Your task to perform on an android device: delete browsing data in the chrome app Image 0: 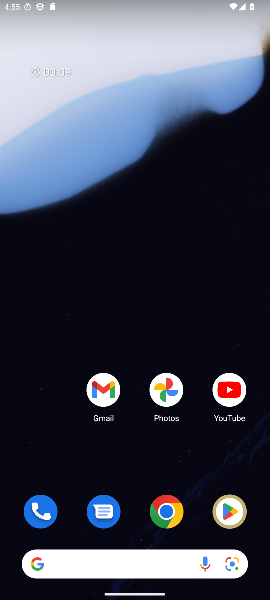
Step 0: click (166, 517)
Your task to perform on an android device: delete browsing data in the chrome app Image 1: 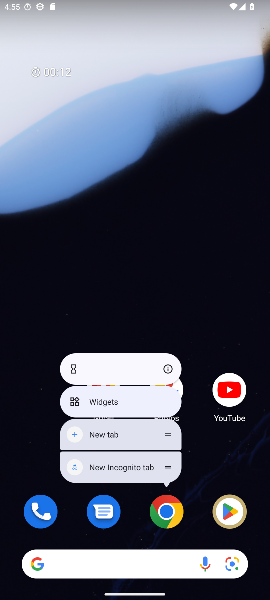
Step 1: click (172, 508)
Your task to perform on an android device: delete browsing data in the chrome app Image 2: 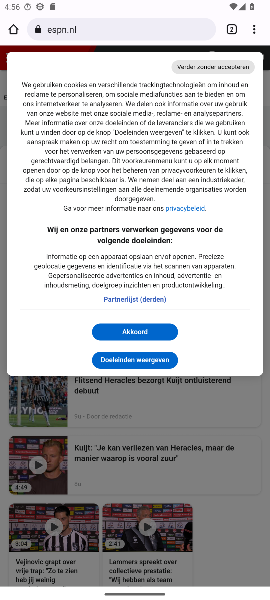
Step 2: click (253, 25)
Your task to perform on an android device: delete browsing data in the chrome app Image 3: 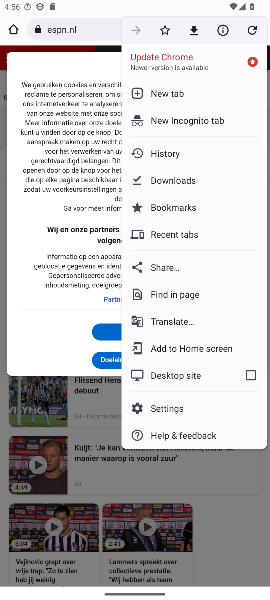
Step 3: click (178, 154)
Your task to perform on an android device: delete browsing data in the chrome app Image 4: 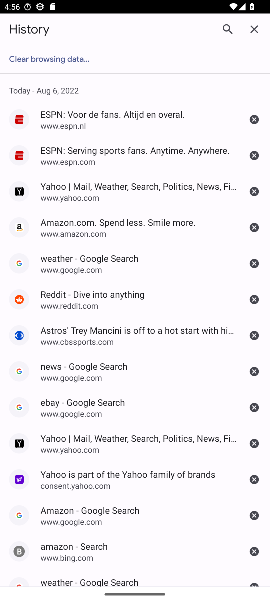
Step 4: click (55, 56)
Your task to perform on an android device: delete browsing data in the chrome app Image 5: 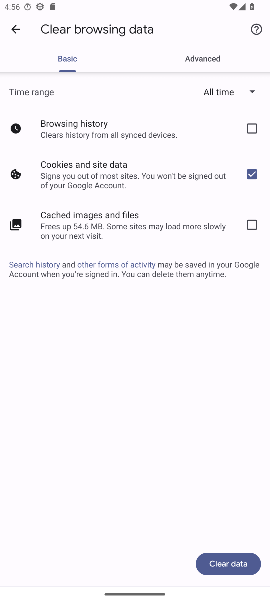
Step 5: click (246, 124)
Your task to perform on an android device: delete browsing data in the chrome app Image 6: 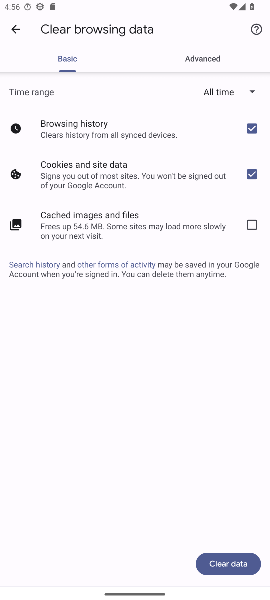
Step 6: click (251, 220)
Your task to perform on an android device: delete browsing data in the chrome app Image 7: 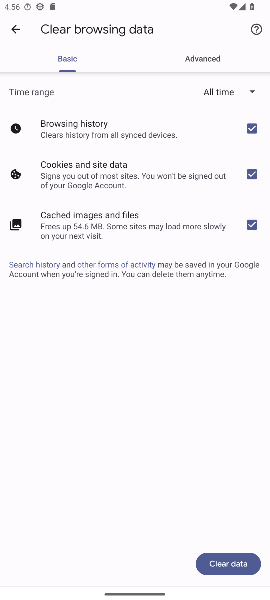
Step 7: click (241, 567)
Your task to perform on an android device: delete browsing data in the chrome app Image 8: 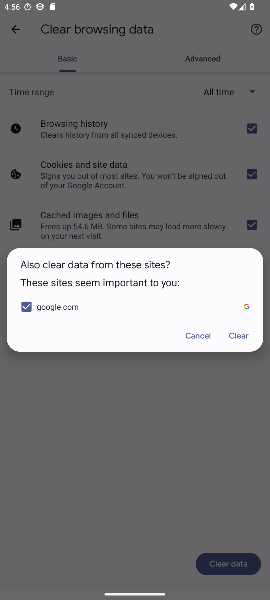
Step 8: click (241, 333)
Your task to perform on an android device: delete browsing data in the chrome app Image 9: 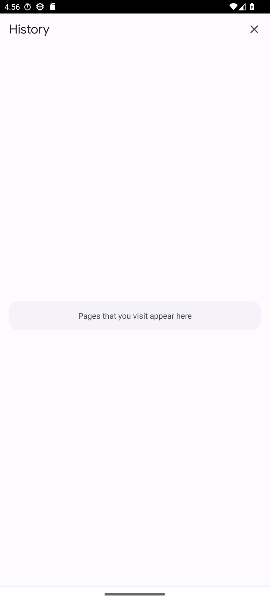
Step 9: task complete